Your task to perform on an android device: Toggle the flashlight Image 0: 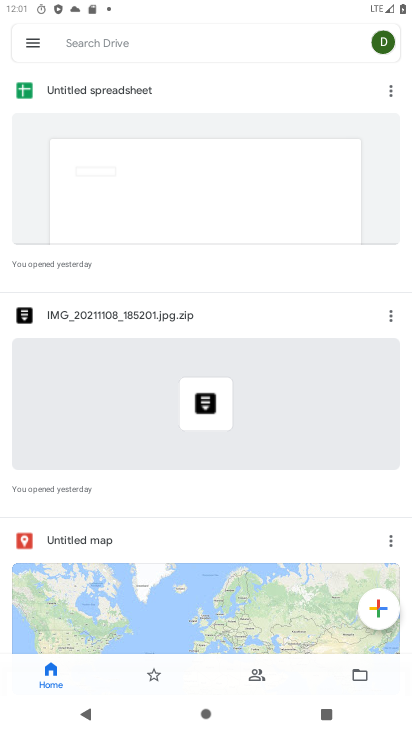
Step 0: press home button
Your task to perform on an android device: Toggle the flashlight Image 1: 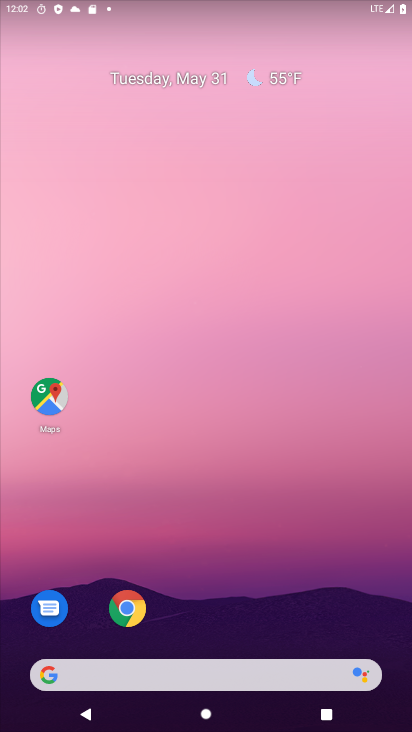
Step 1: task complete